Your task to perform on an android device: turn off improve location accuracy Image 0: 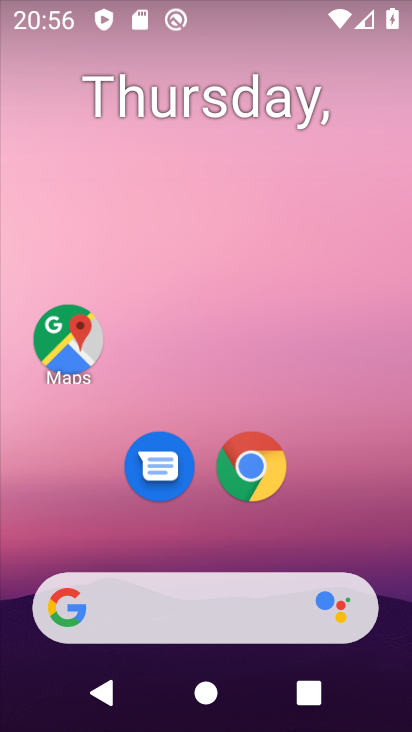
Step 0: drag from (202, 557) to (298, 2)
Your task to perform on an android device: turn off improve location accuracy Image 1: 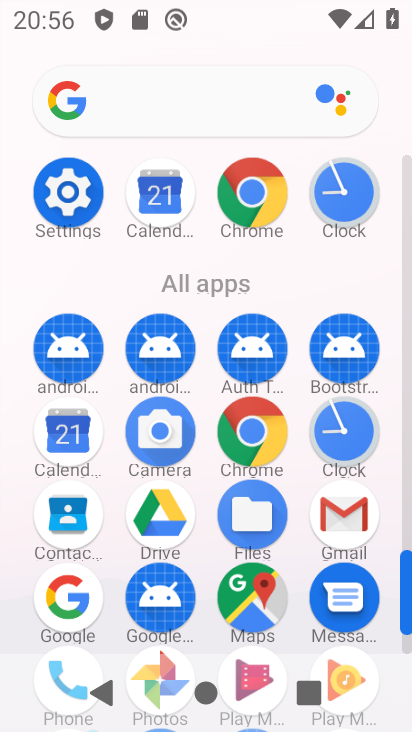
Step 1: click (42, 184)
Your task to perform on an android device: turn off improve location accuracy Image 2: 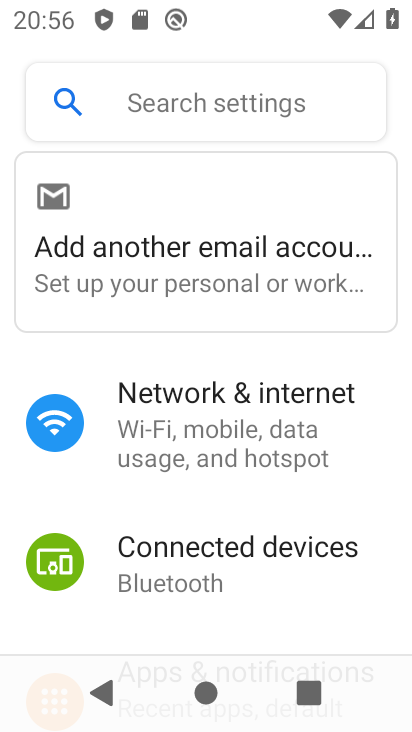
Step 2: drag from (236, 569) to (186, 142)
Your task to perform on an android device: turn off improve location accuracy Image 3: 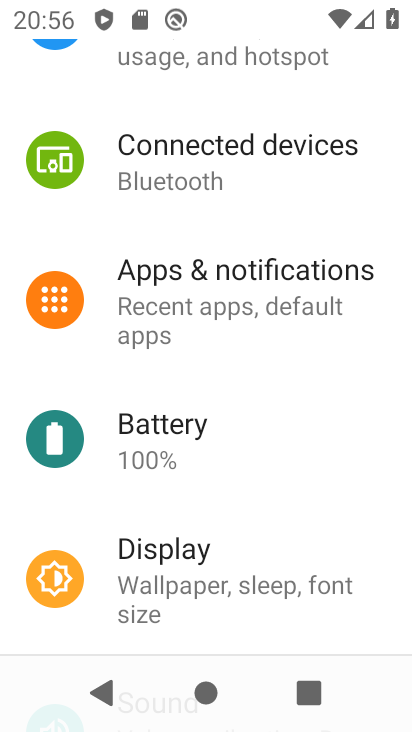
Step 3: drag from (184, 579) to (142, 66)
Your task to perform on an android device: turn off improve location accuracy Image 4: 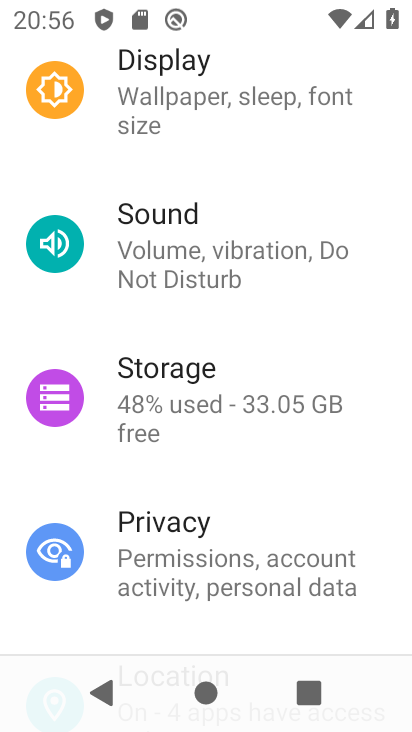
Step 4: drag from (228, 579) to (231, 242)
Your task to perform on an android device: turn off improve location accuracy Image 5: 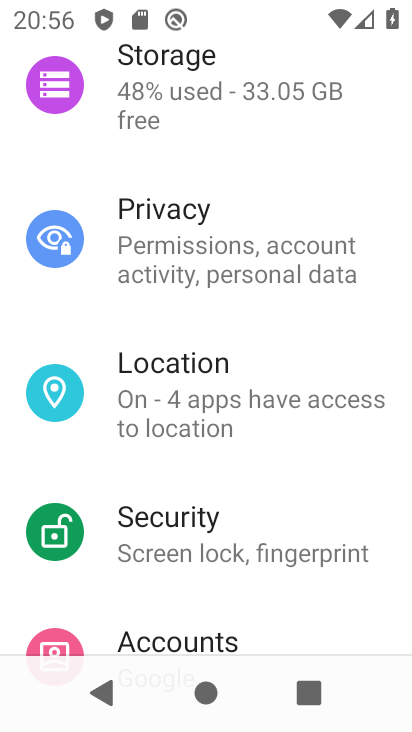
Step 5: click (85, 383)
Your task to perform on an android device: turn off improve location accuracy Image 6: 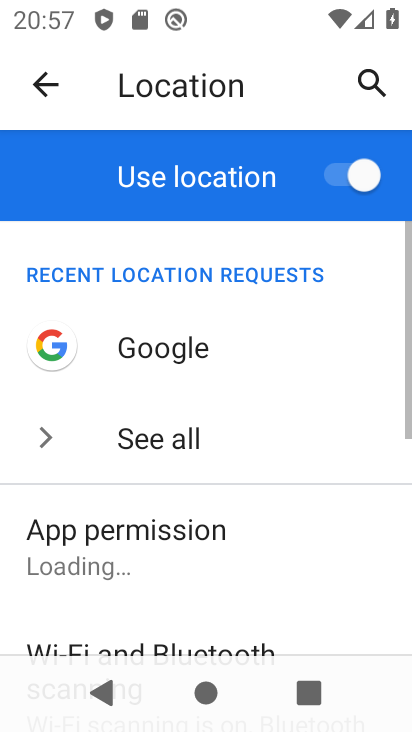
Step 6: drag from (230, 550) to (230, 143)
Your task to perform on an android device: turn off improve location accuracy Image 7: 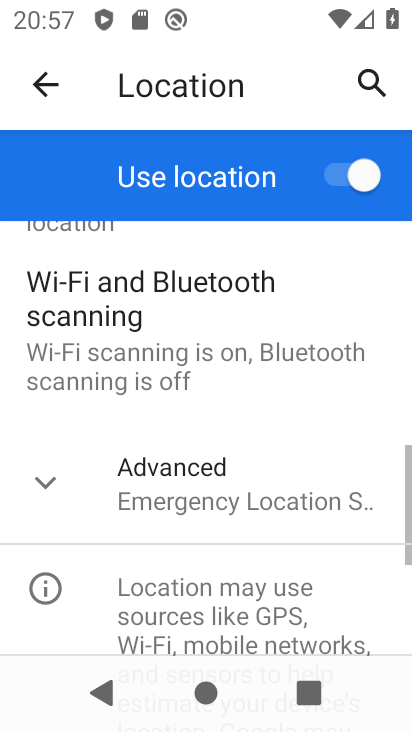
Step 7: click (200, 466)
Your task to perform on an android device: turn off improve location accuracy Image 8: 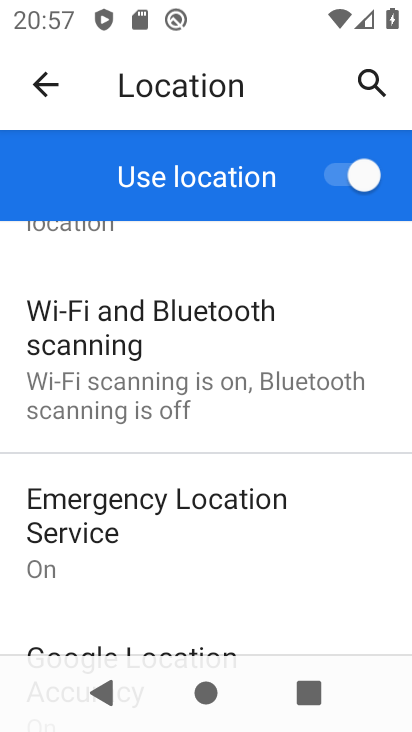
Step 8: drag from (193, 617) to (153, 239)
Your task to perform on an android device: turn off improve location accuracy Image 9: 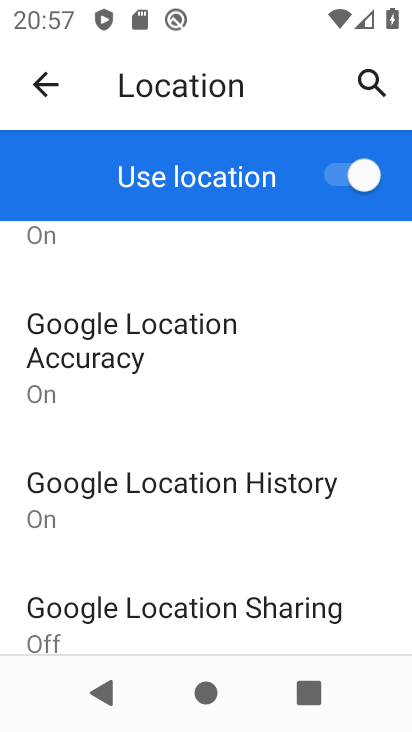
Step 9: click (162, 358)
Your task to perform on an android device: turn off improve location accuracy Image 10: 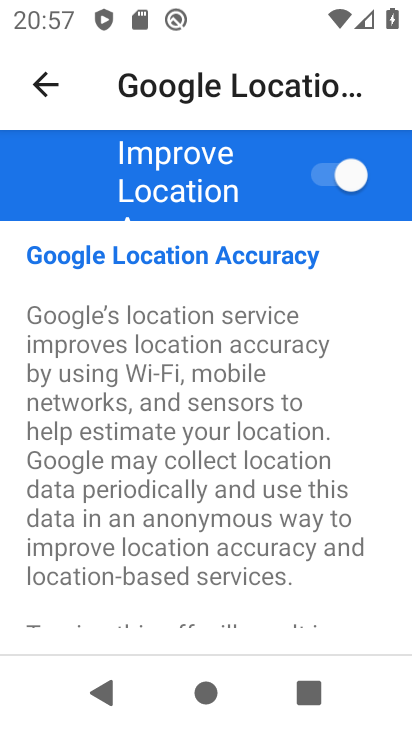
Step 10: click (353, 188)
Your task to perform on an android device: turn off improve location accuracy Image 11: 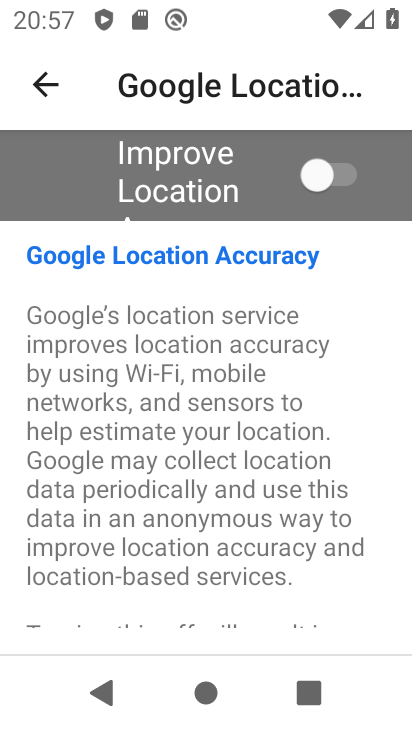
Step 11: task complete